Your task to perform on an android device: turn off translation in the chrome app Image 0: 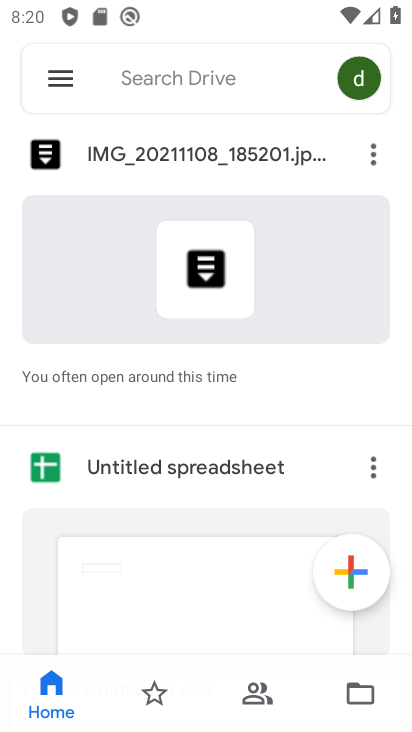
Step 0: press home button
Your task to perform on an android device: turn off translation in the chrome app Image 1: 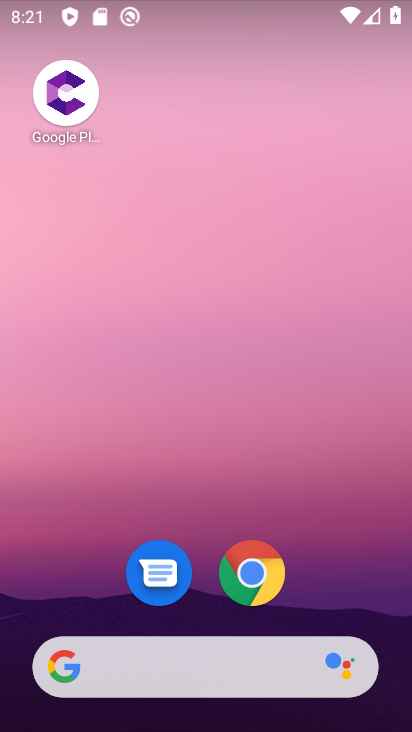
Step 1: click (249, 564)
Your task to perform on an android device: turn off translation in the chrome app Image 2: 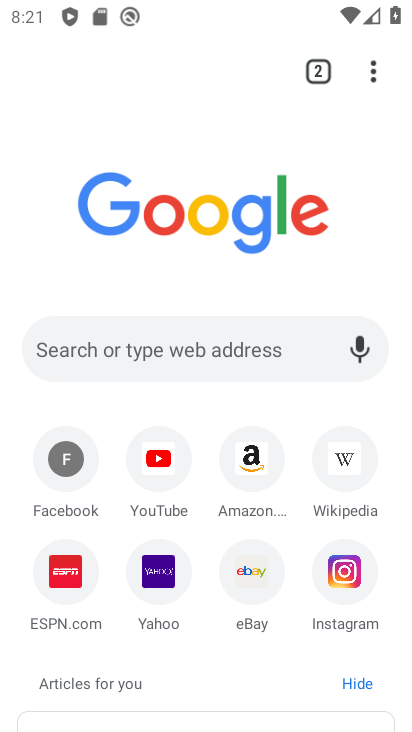
Step 2: drag from (373, 72) to (160, 591)
Your task to perform on an android device: turn off translation in the chrome app Image 3: 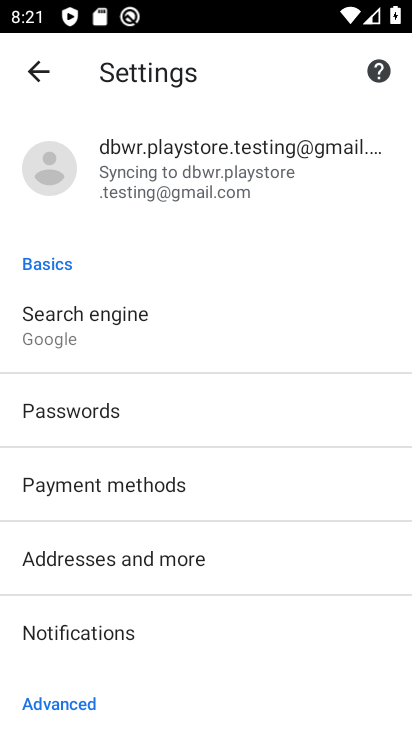
Step 3: drag from (234, 646) to (382, 279)
Your task to perform on an android device: turn off translation in the chrome app Image 4: 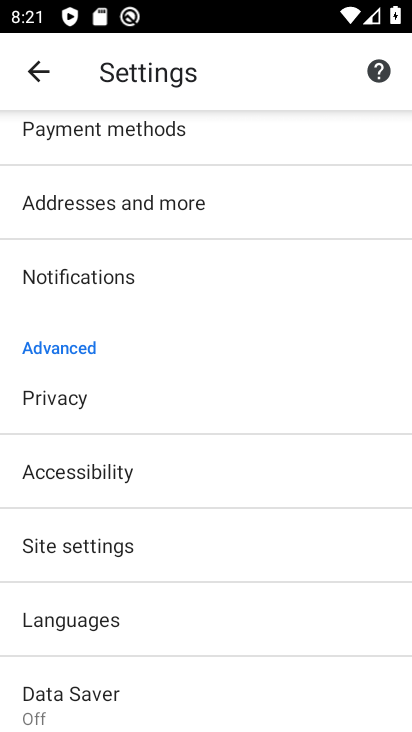
Step 4: click (123, 615)
Your task to perform on an android device: turn off translation in the chrome app Image 5: 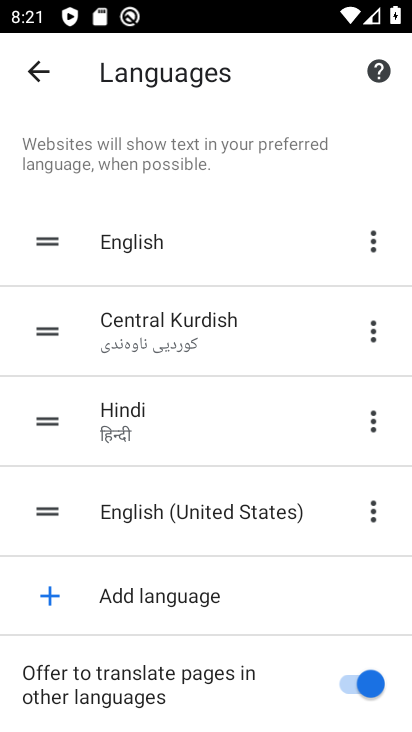
Step 5: click (375, 681)
Your task to perform on an android device: turn off translation in the chrome app Image 6: 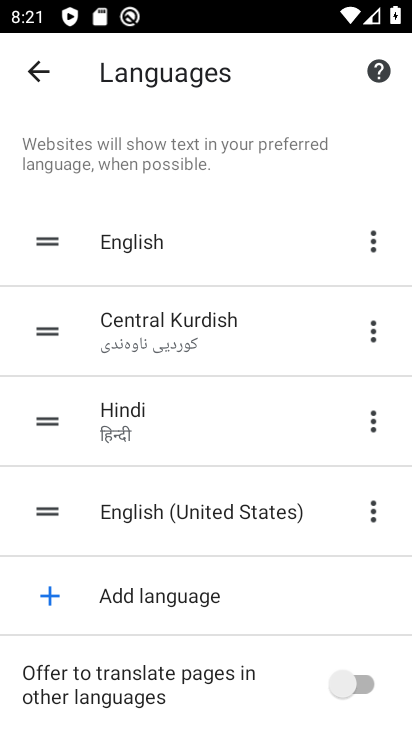
Step 6: task complete